Your task to perform on an android device: Set the phone to "Do not disturb". Image 0: 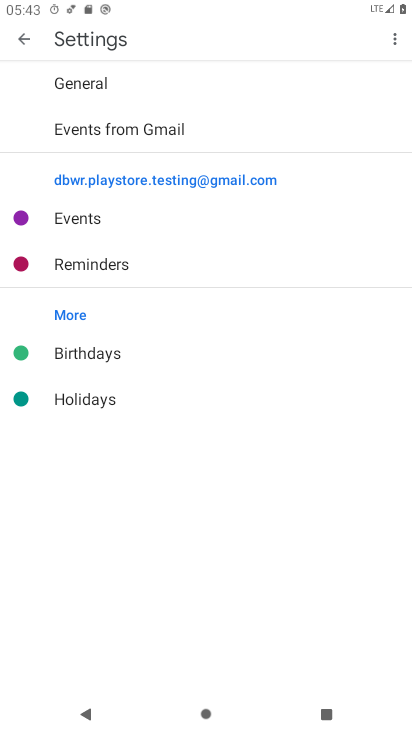
Step 0: press home button
Your task to perform on an android device: Set the phone to "Do not disturb". Image 1: 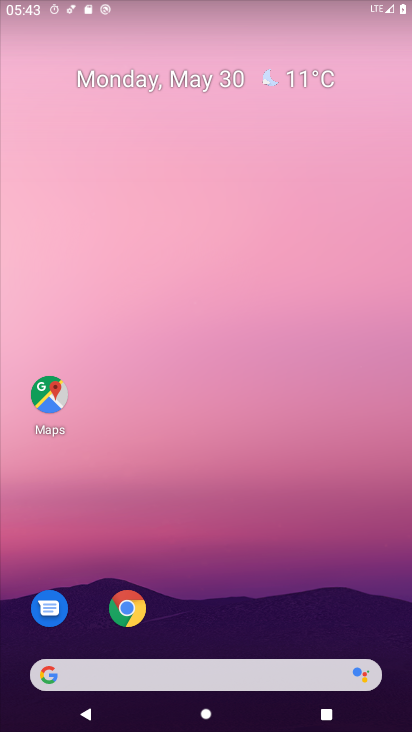
Step 1: drag from (269, 24) to (205, 19)
Your task to perform on an android device: Set the phone to "Do not disturb". Image 2: 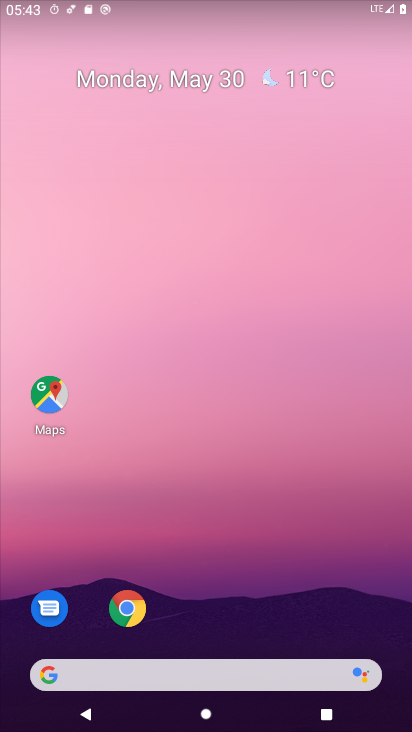
Step 2: drag from (236, 524) to (68, 54)
Your task to perform on an android device: Set the phone to "Do not disturb". Image 3: 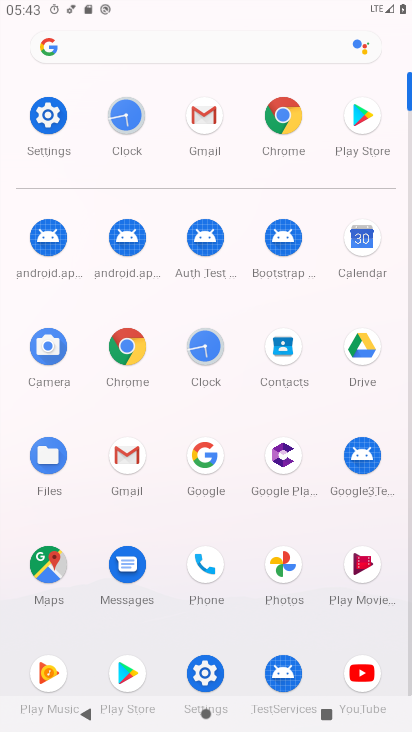
Step 3: click (56, 112)
Your task to perform on an android device: Set the phone to "Do not disturb". Image 4: 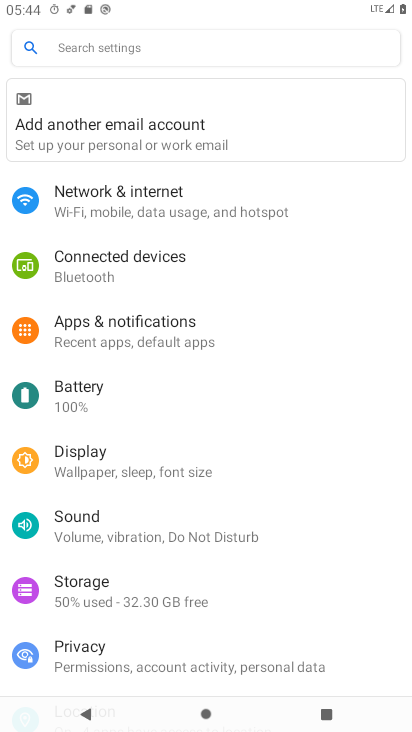
Step 4: click (150, 526)
Your task to perform on an android device: Set the phone to "Do not disturb". Image 5: 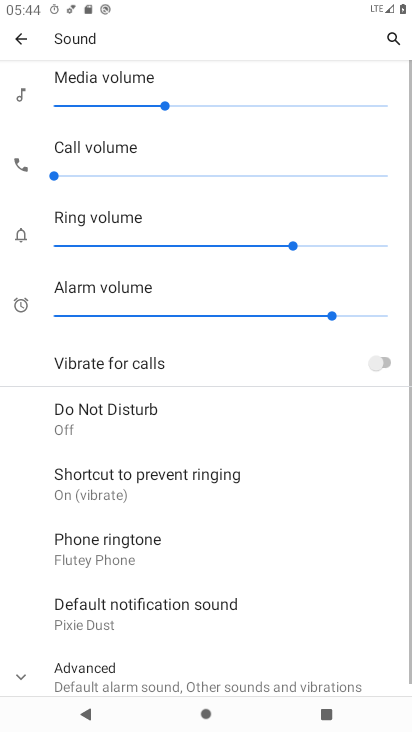
Step 5: drag from (177, 608) to (185, 224)
Your task to perform on an android device: Set the phone to "Do not disturb". Image 6: 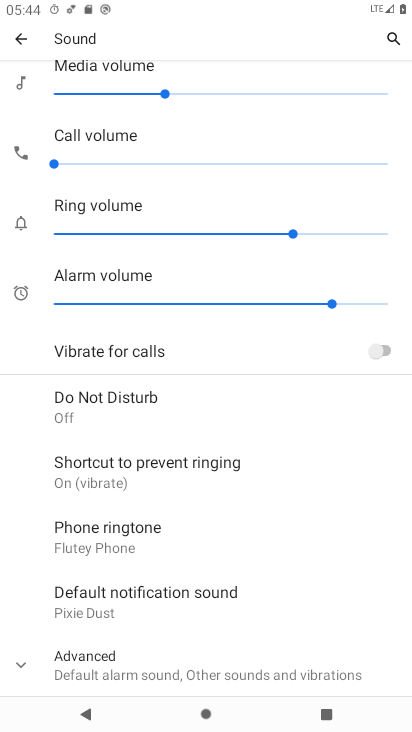
Step 6: drag from (229, 615) to (208, 393)
Your task to perform on an android device: Set the phone to "Do not disturb". Image 7: 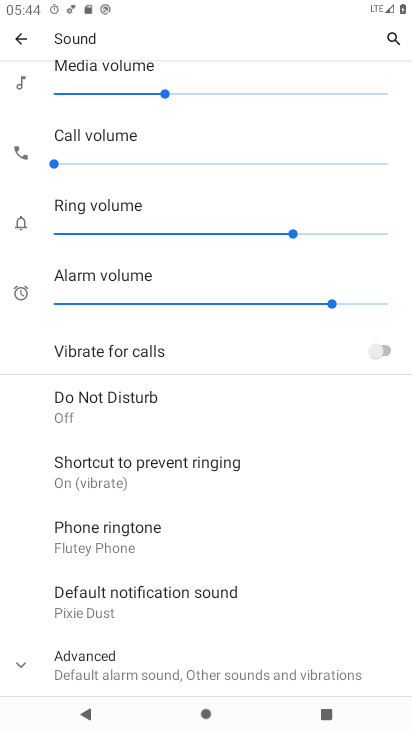
Step 7: click (162, 408)
Your task to perform on an android device: Set the phone to "Do not disturb". Image 8: 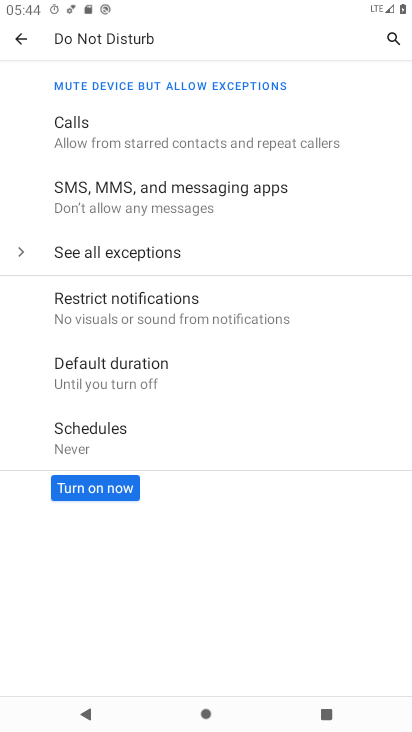
Step 8: click (101, 492)
Your task to perform on an android device: Set the phone to "Do not disturb". Image 9: 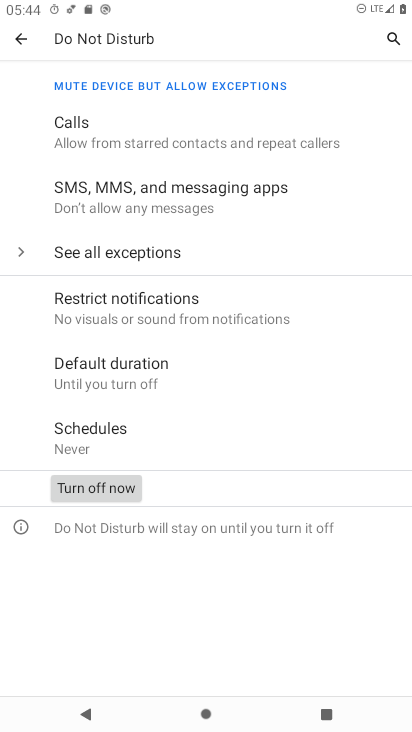
Step 9: task complete